Your task to perform on an android device: Set the phone to "Do not disturb". Image 0: 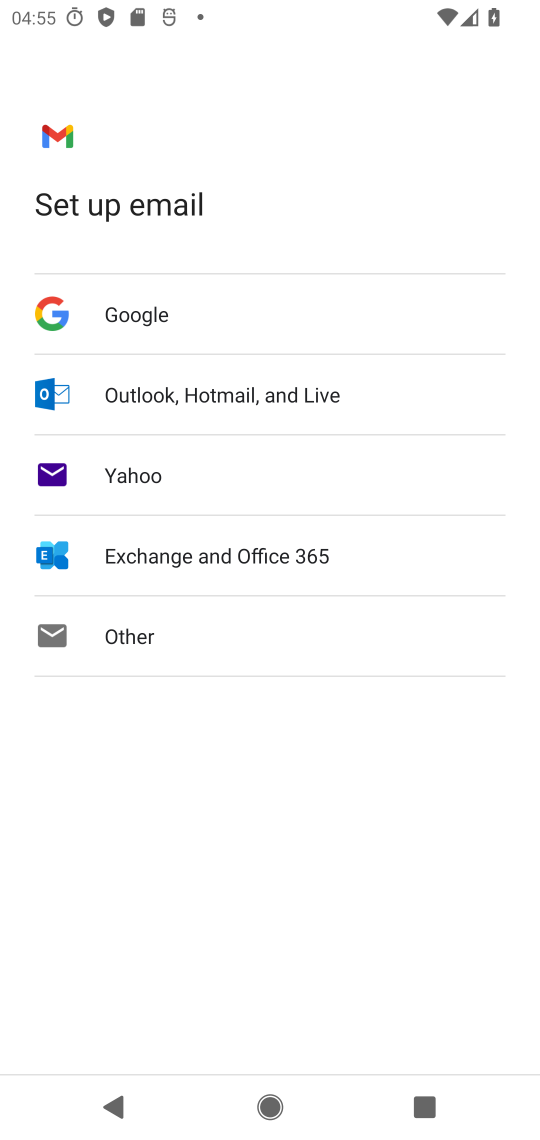
Step 0: press home button
Your task to perform on an android device: Set the phone to "Do not disturb". Image 1: 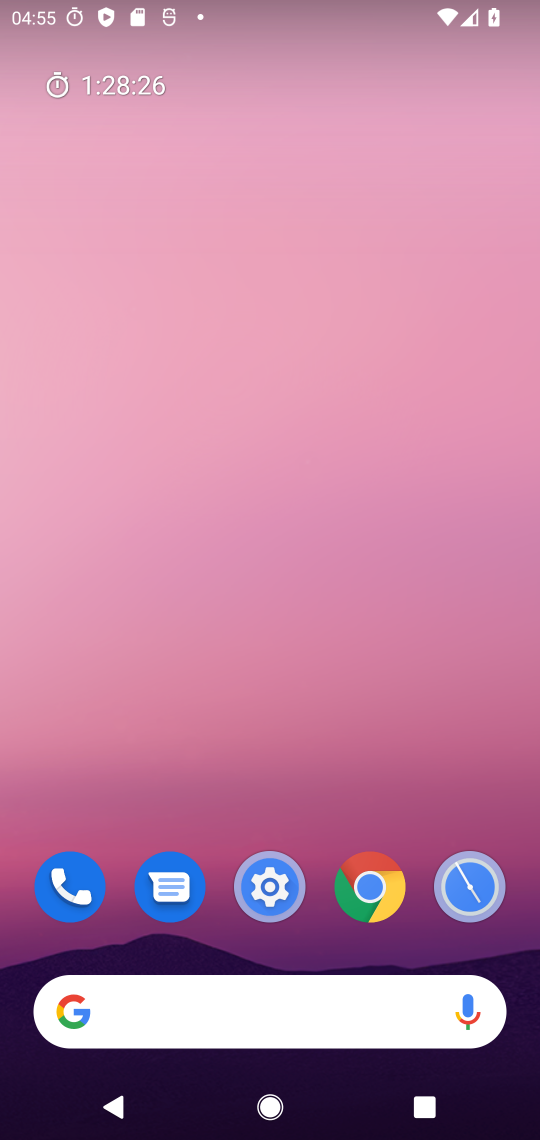
Step 1: drag from (414, 714) to (426, 211)
Your task to perform on an android device: Set the phone to "Do not disturb". Image 2: 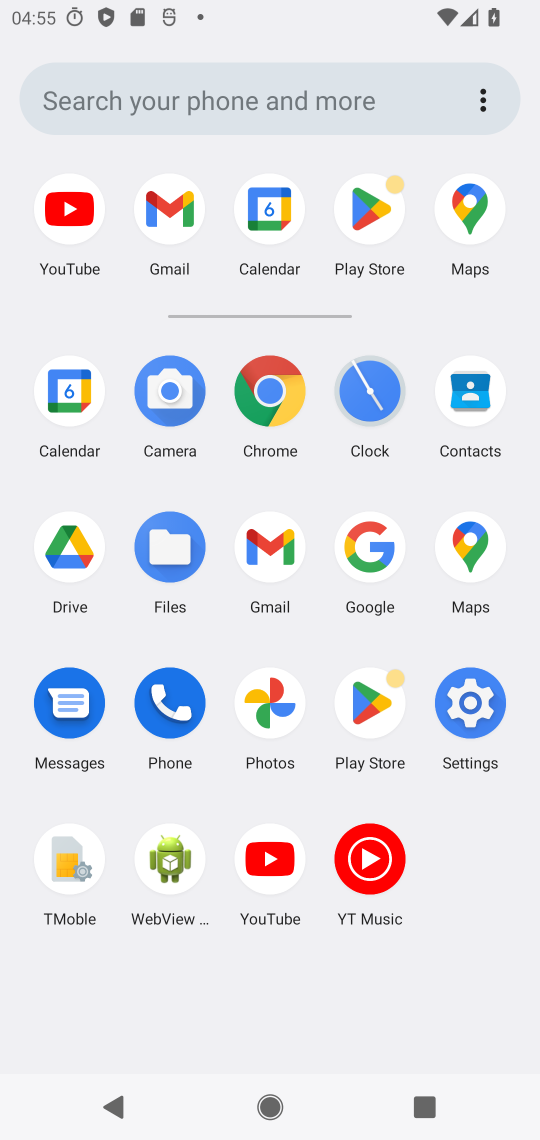
Step 2: click (484, 702)
Your task to perform on an android device: Set the phone to "Do not disturb". Image 3: 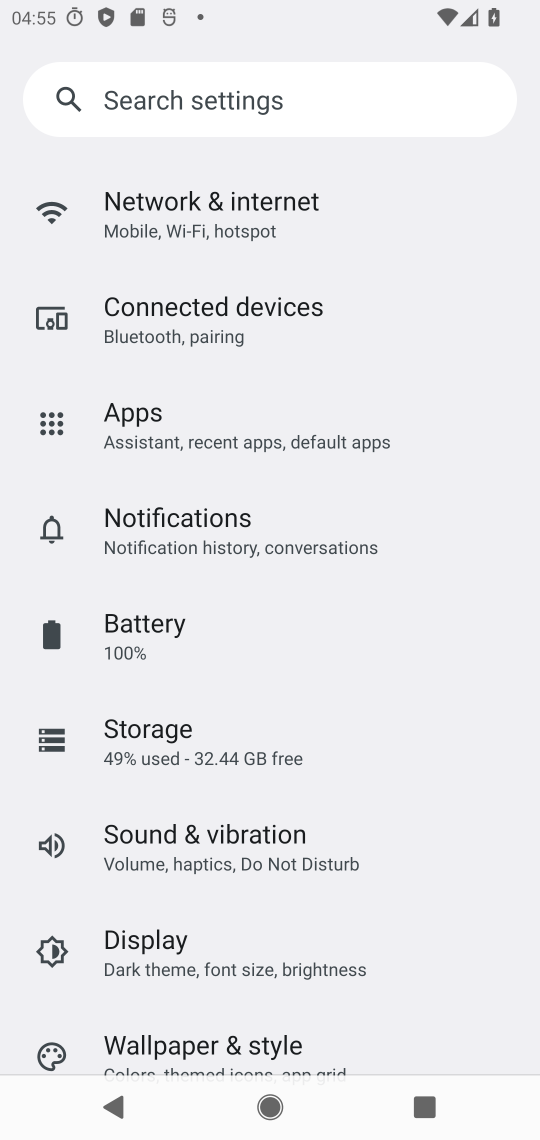
Step 3: drag from (462, 748) to (452, 576)
Your task to perform on an android device: Set the phone to "Do not disturb". Image 4: 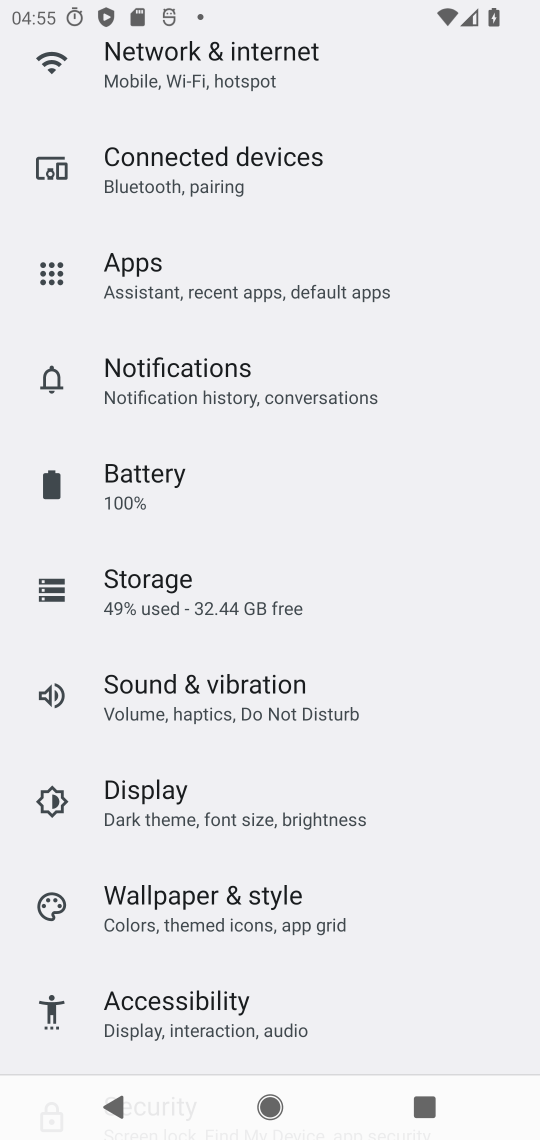
Step 4: drag from (435, 794) to (451, 641)
Your task to perform on an android device: Set the phone to "Do not disturb". Image 5: 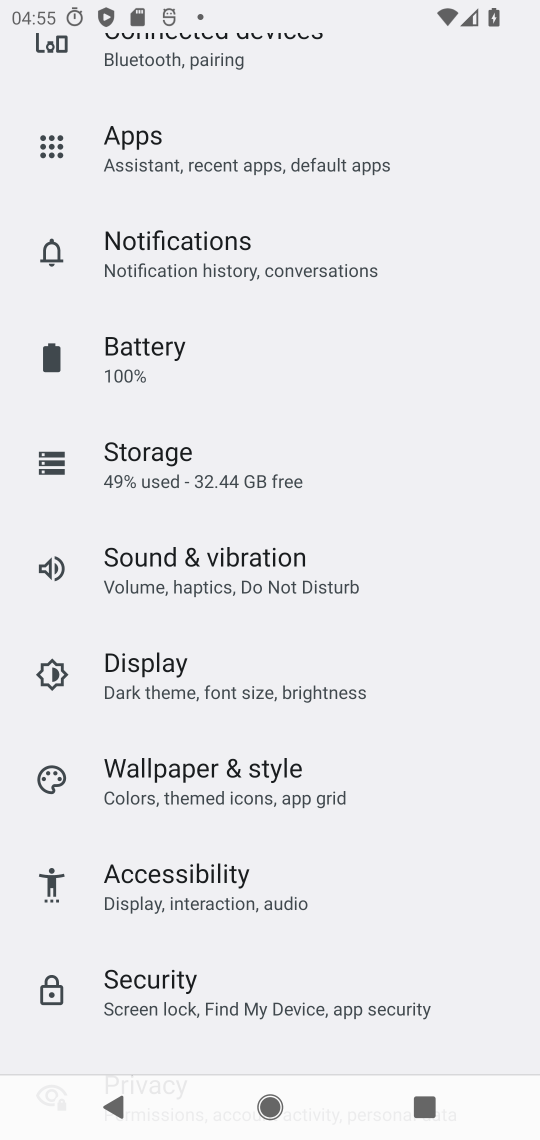
Step 5: drag from (465, 822) to (496, 630)
Your task to perform on an android device: Set the phone to "Do not disturb". Image 6: 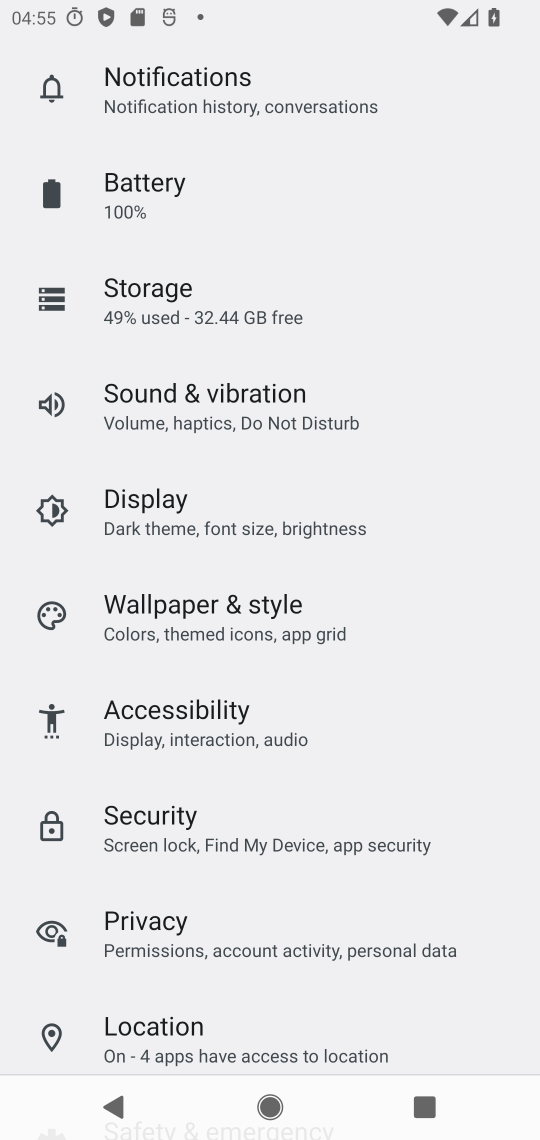
Step 6: click (289, 396)
Your task to perform on an android device: Set the phone to "Do not disturb". Image 7: 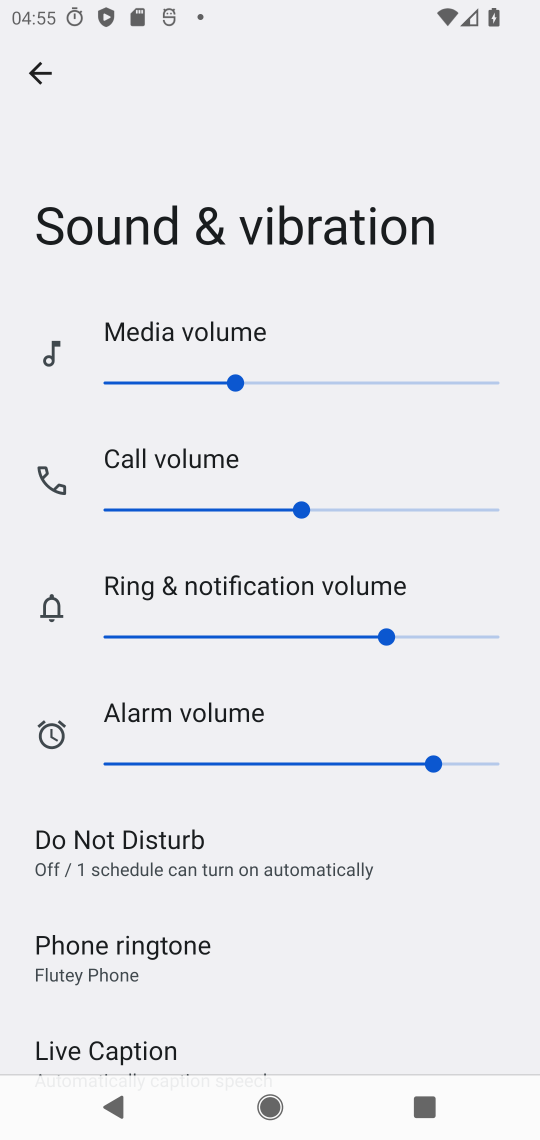
Step 7: drag from (311, 795) to (325, 650)
Your task to perform on an android device: Set the phone to "Do not disturb". Image 8: 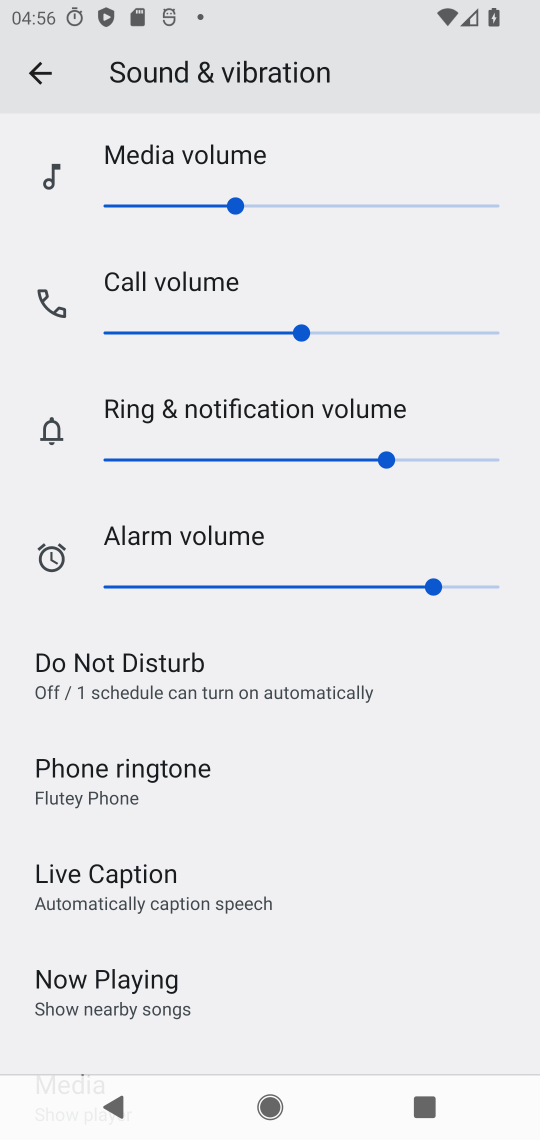
Step 8: click (283, 712)
Your task to perform on an android device: Set the phone to "Do not disturb". Image 9: 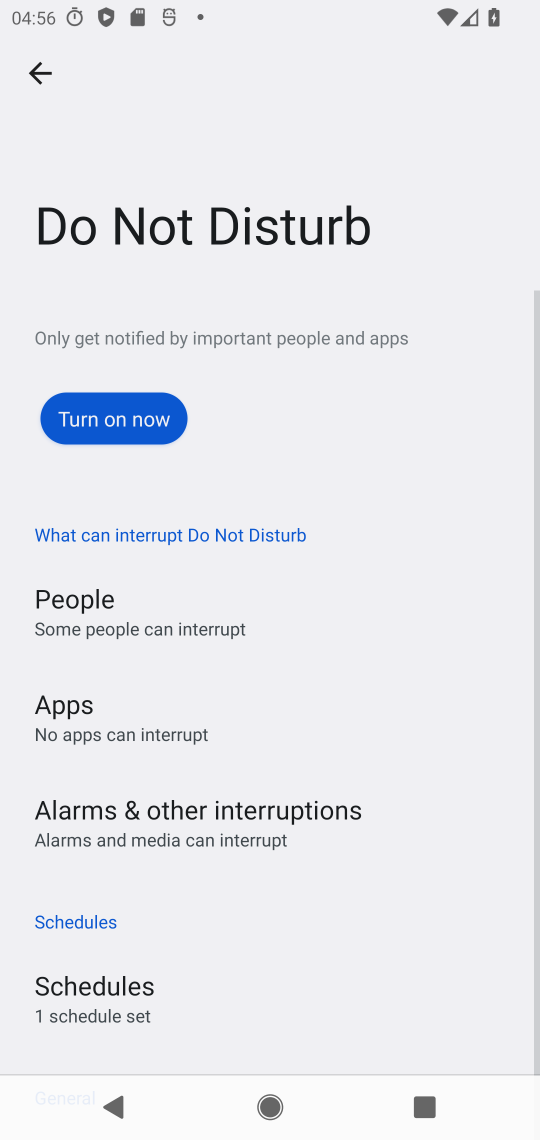
Step 9: drag from (351, 790) to (360, 531)
Your task to perform on an android device: Set the phone to "Do not disturb". Image 10: 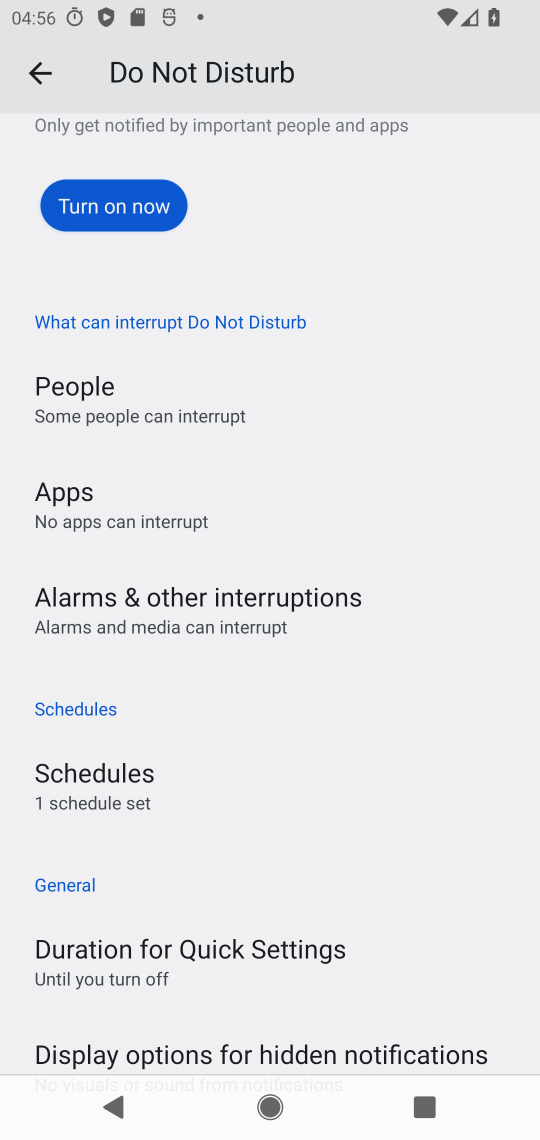
Step 10: drag from (383, 813) to (397, 577)
Your task to perform on an android device: Set the phone to "Do not disturb". Image 11: 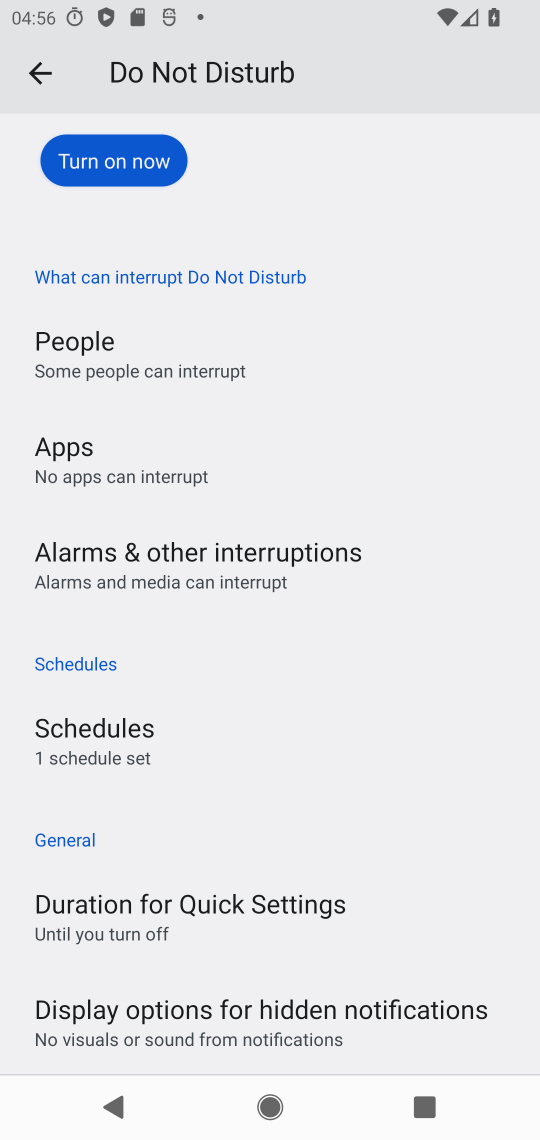
Step 11: click (120, 166)
Your task to perform on an android device: Set the phone to "Do not disturb". Image 12: 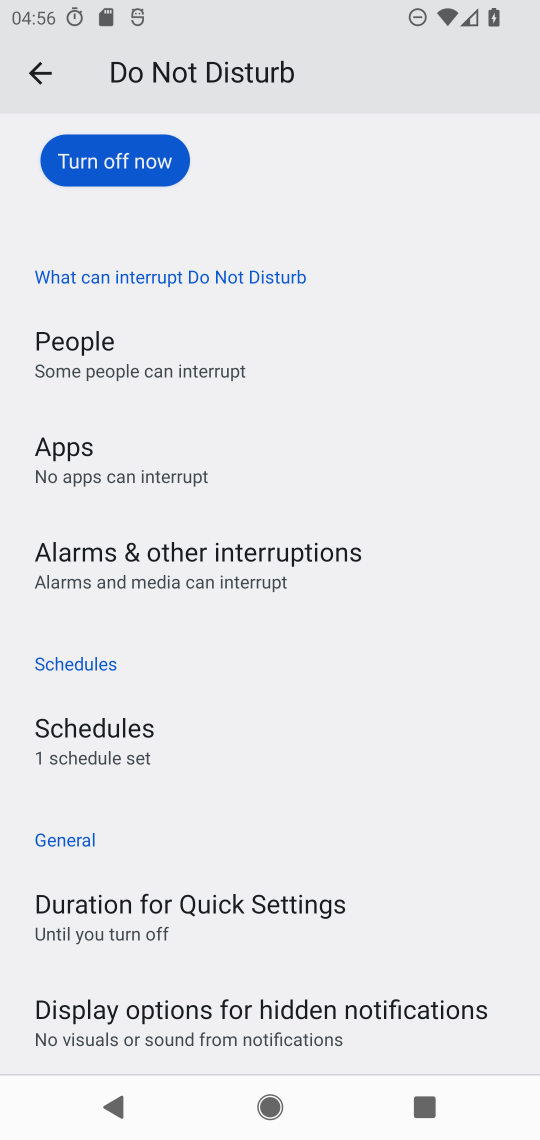
Step 12: task complete